Your task to perform on an android device: change the clock display to digital Image 0: 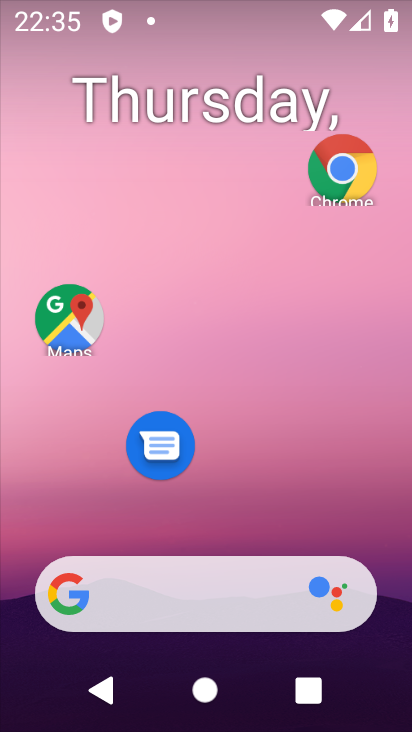
Step 0: drag from (224, 481) to (224, 8)
Your task to perform on an android device: change the clock display to digital Image 1: 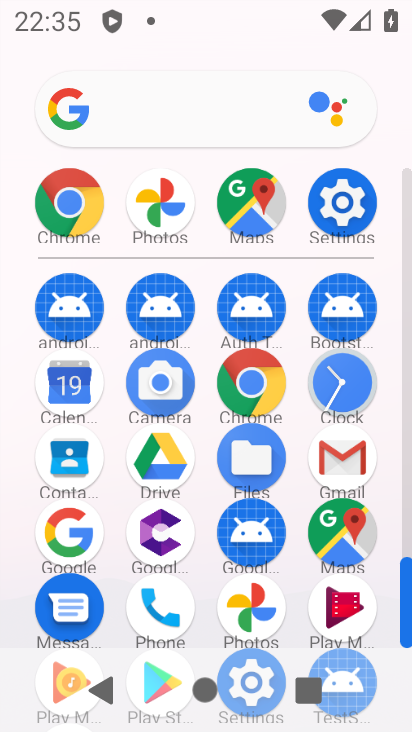
Step 1: click (339, 381)
Your task to perform on an android device: change the clock display to digital Image 2: 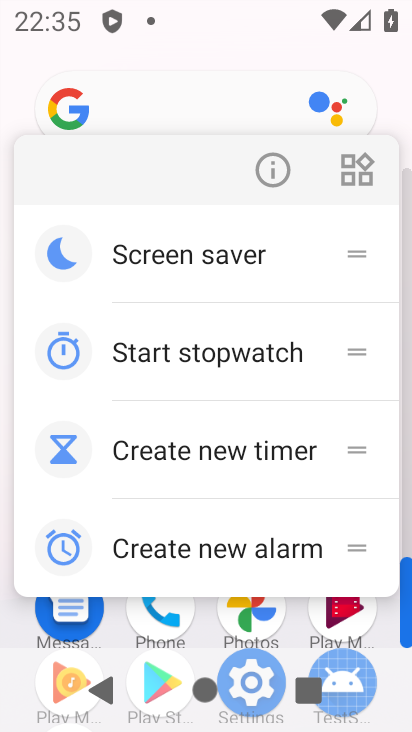
Step 2: click (253, 157)
Your task to perform on an android device: change the clock display to digital Image 3: 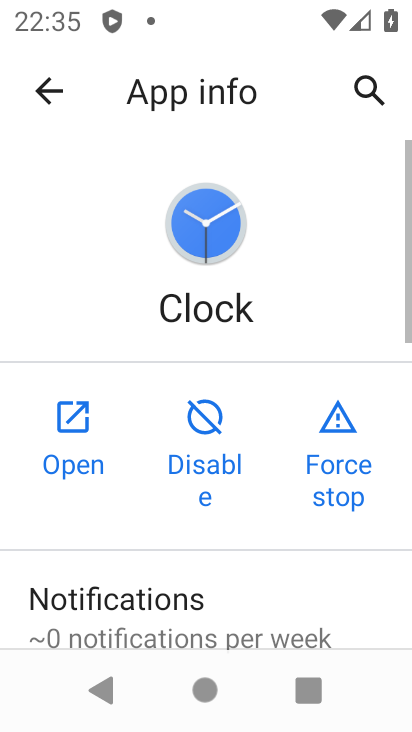
Step 3: click (41, 408)
Your task to perform on an android device: change the clock display to digital Image 4: 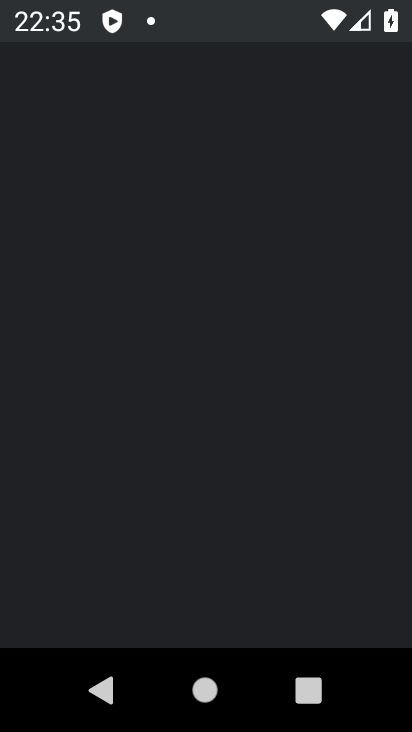
Step 4: drag from (255, 579) to (261, 186)
Your task to perform on an android device: change the clock display to digital Image 5: 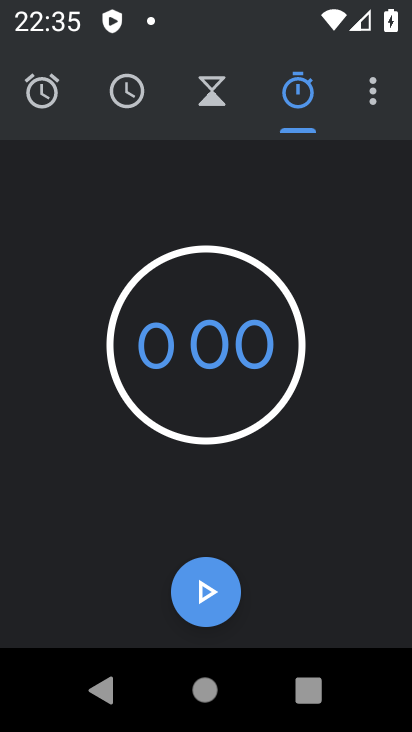
Step 5: click (371, 87)
Your task to perform on an android device: change the clock display to digital Image 6: 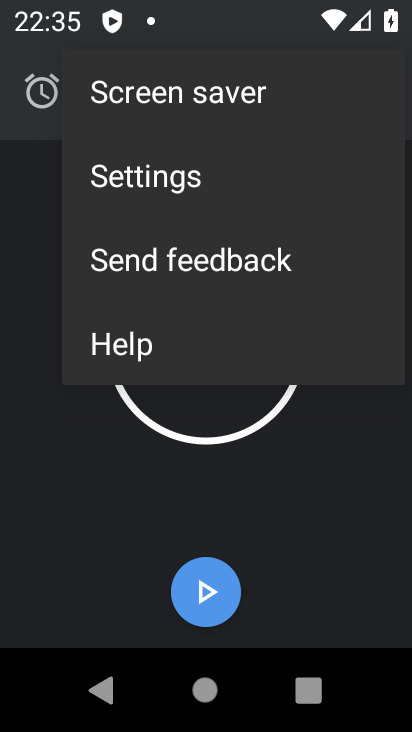
Step 6: click (235, 183)
Your task to perform on an android device: change the clock display to digital Image 7: 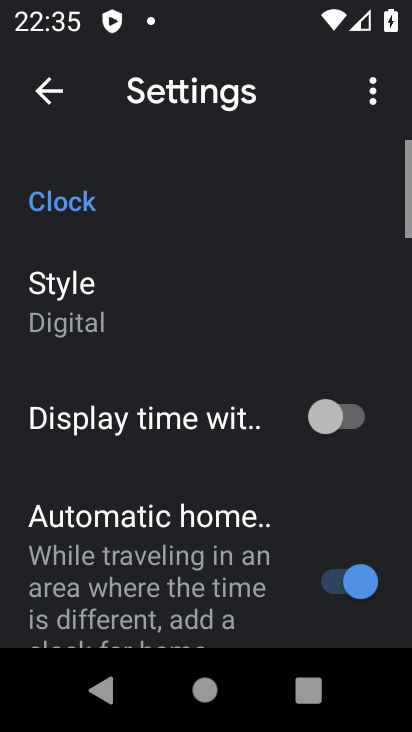
Step 7: click (65, 304)
Your task to perform on an android device: change the clock display to digital Image 8: 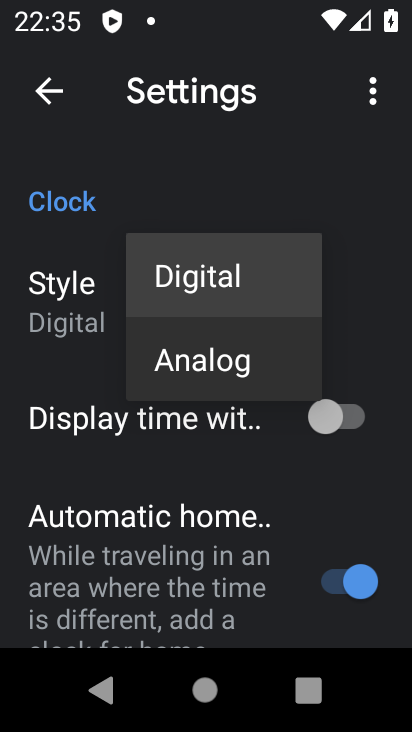
Step 8: task complete